Your task to perform on an android device: Set the phone to "Do not disturb". Image 0: 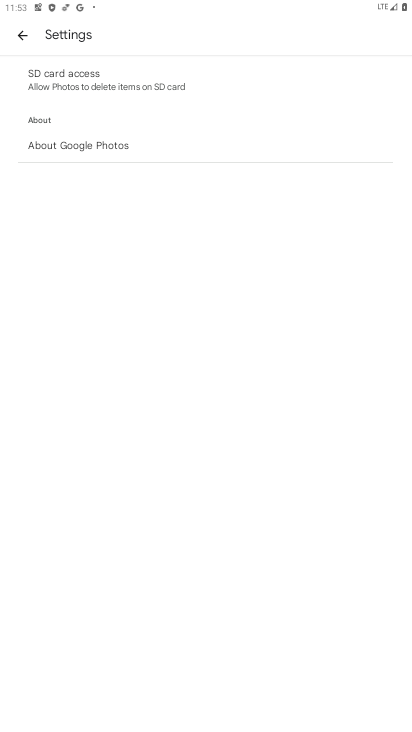
Step 0: press home button
Your task to perform on an android device: Set the phone to "Do not disturb". Image 1: 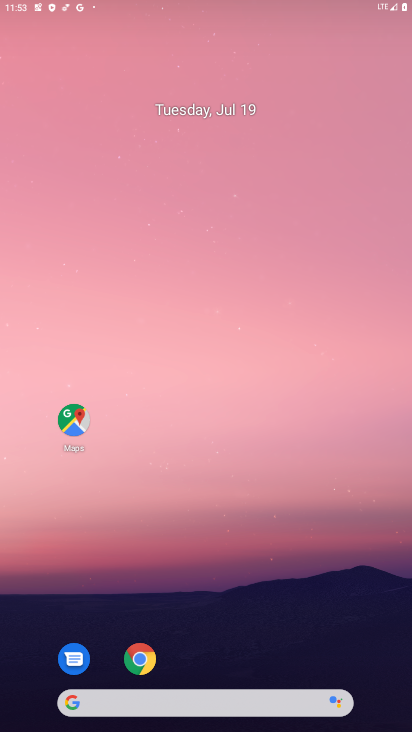
Step 1: drag from (264, 662) to (225, 94)
Your task to perform on an android device: Set the phone to "Do not disturb". Image 2: 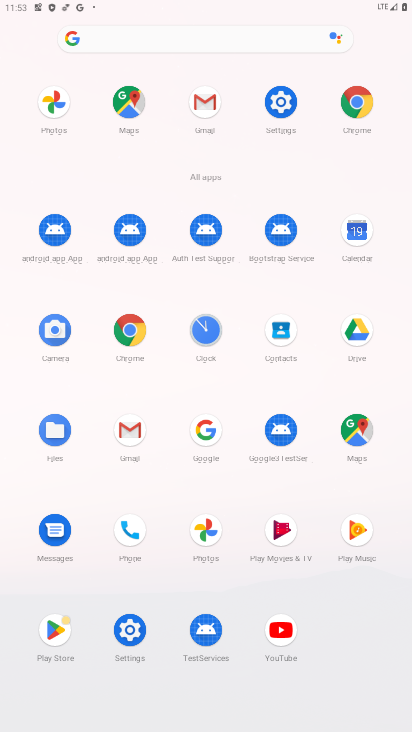
Step 2: press home button
Your task to perform on an android device: Set the phone to "Do not disturb". Image 3: 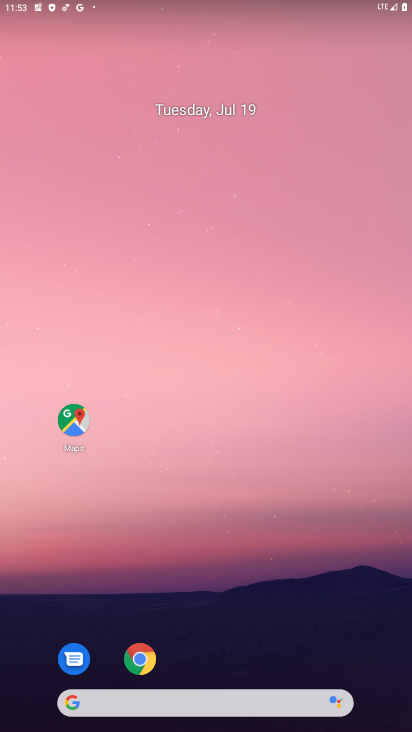
Step 3: drag from (201, 8) to (269, 571)
Your task to perform on an android device: Set the phone to "Do not disturb". Image 4: 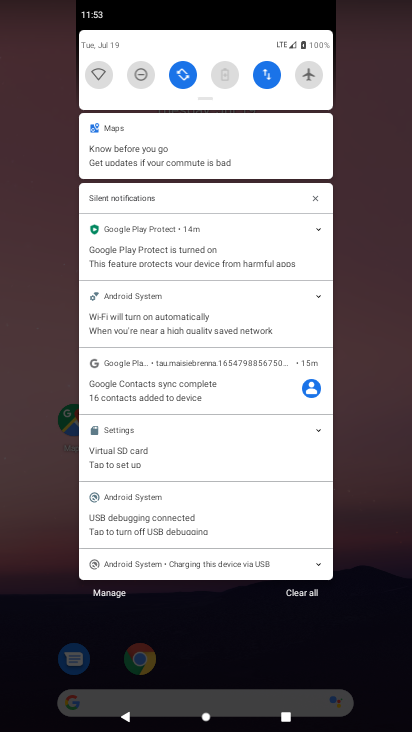
Step 4: click (147, 68)
Your task to perform on an android device: Set the phone to "Do not disturb". Image 5: 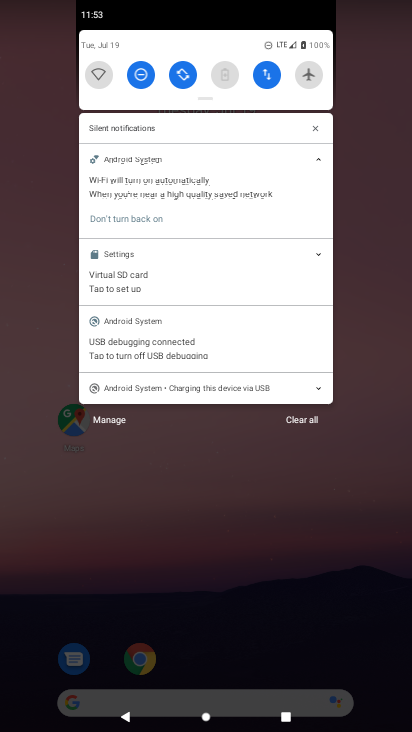
Step 5: task complete